Your task to perform on an android device: Is it going to rain this weekend? Image 0: 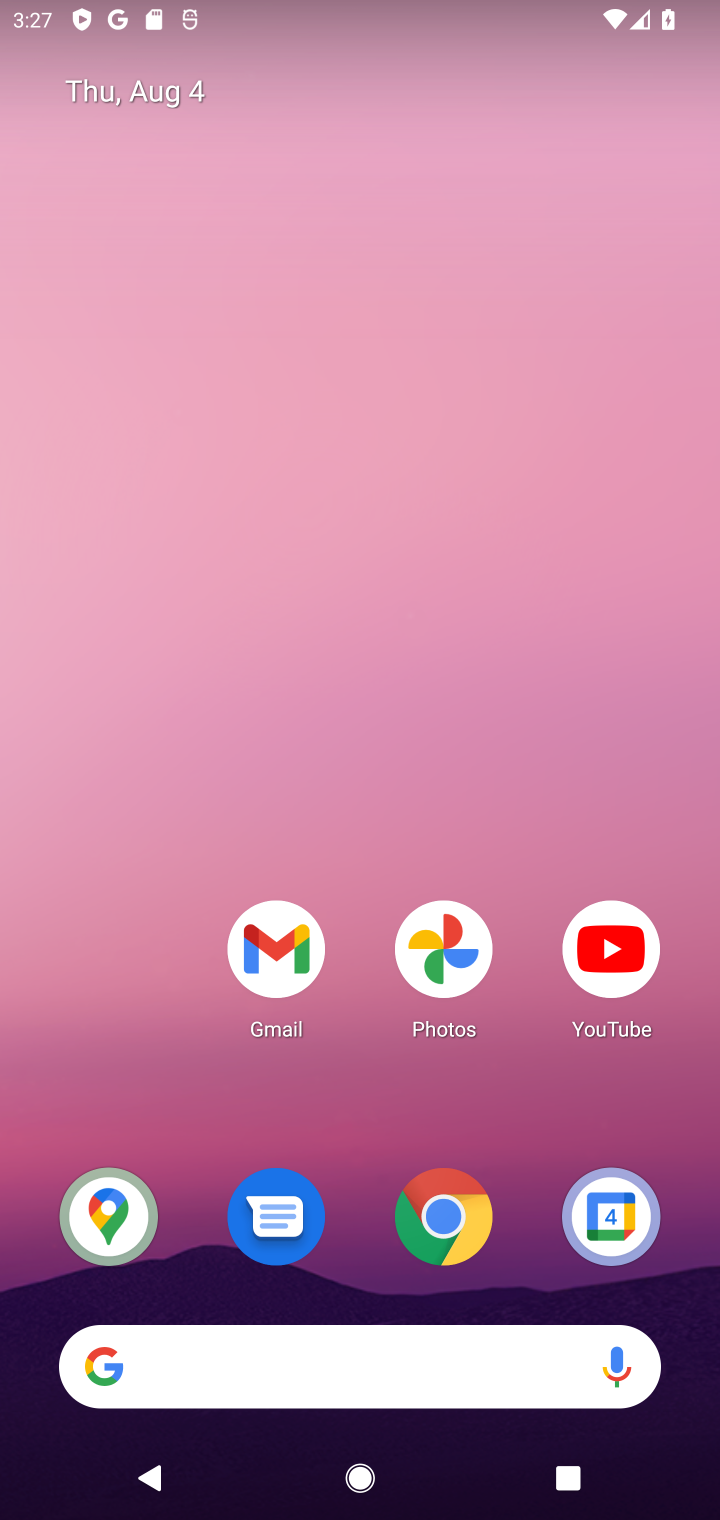
Step 0: drag from (73, 1078) to (206, 164)
Your task to perform on an android device: Is it going to rain this weekend? Image 1: 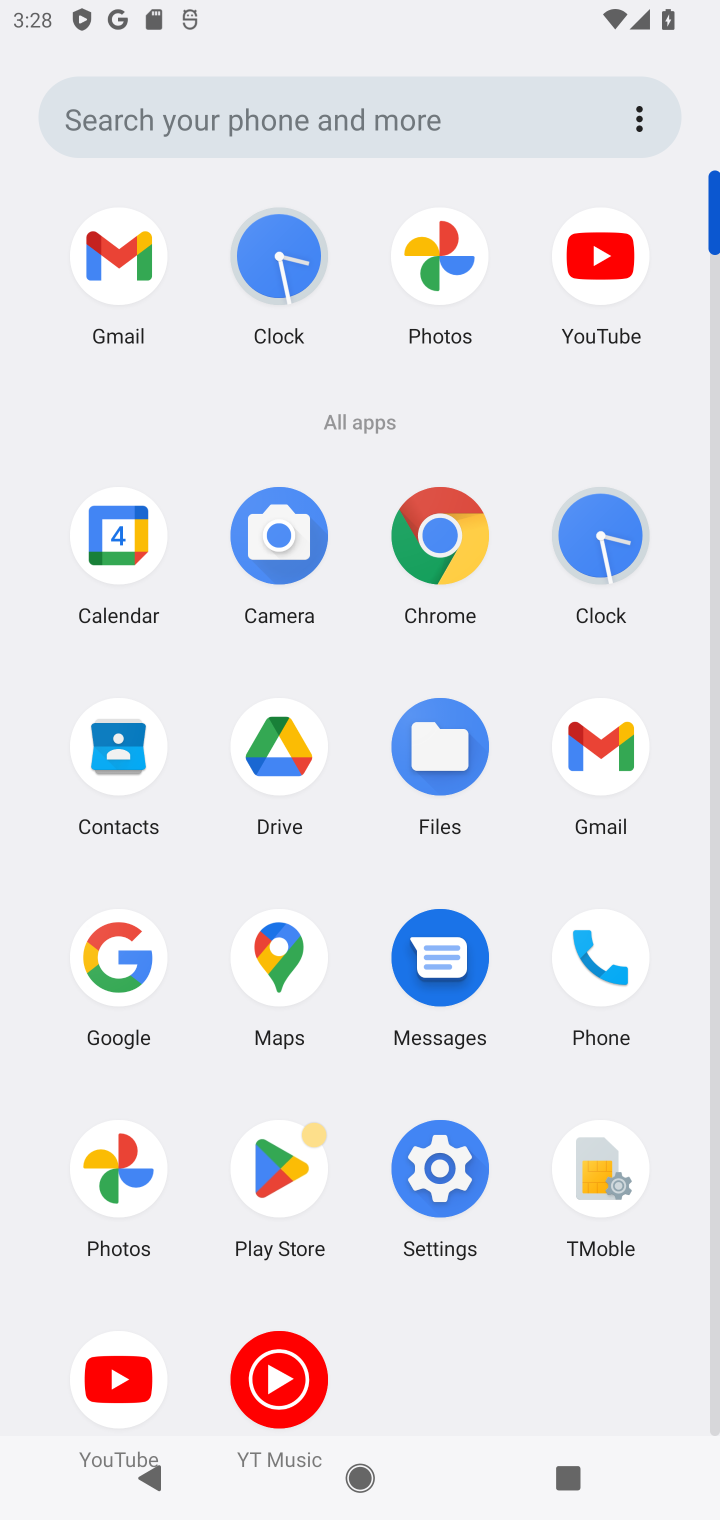
Step 1: click (355, 109)
Your task to perform on an android device: Is it going to rain this weekend? Image 2: 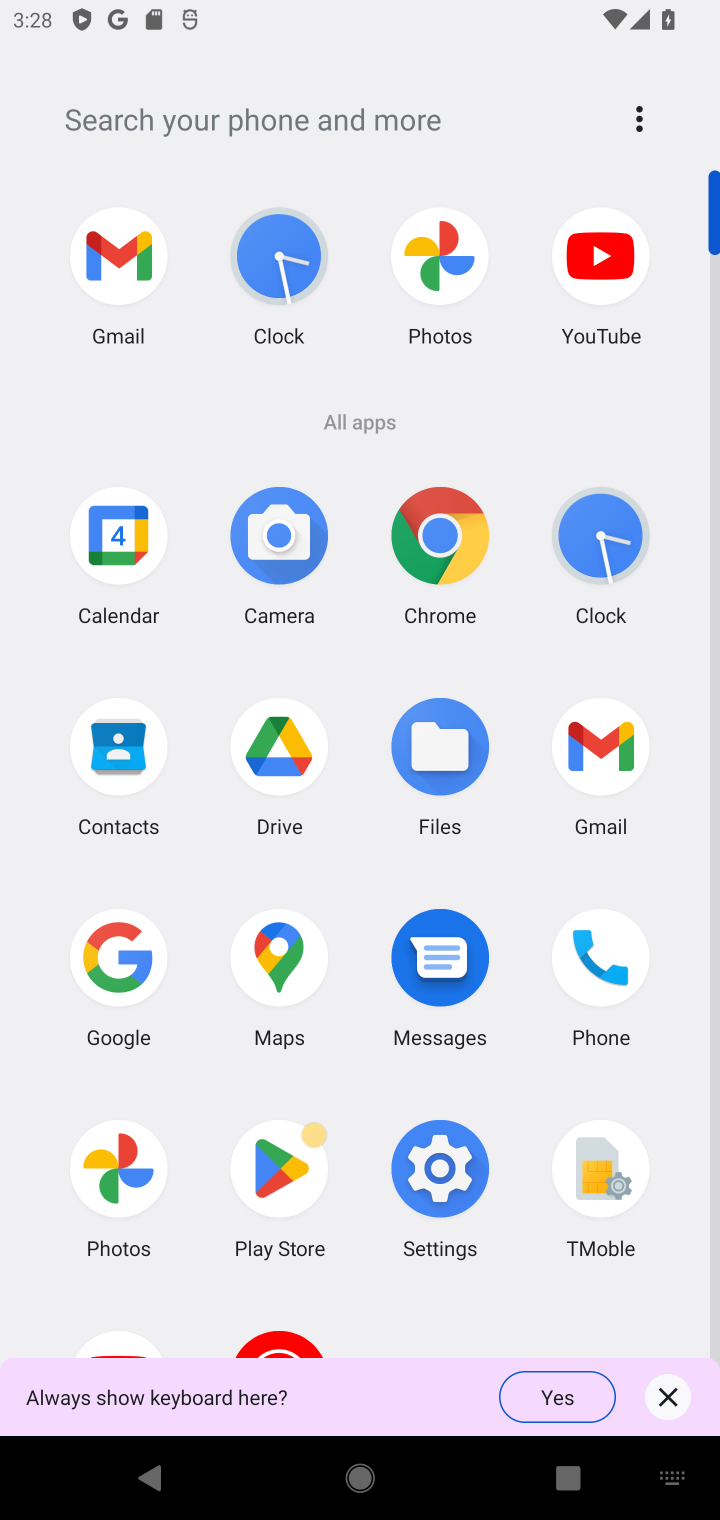
Step 2: click (161, 124)
Your task to perform on an android device: Is it going to rain this weekend? Image 3: 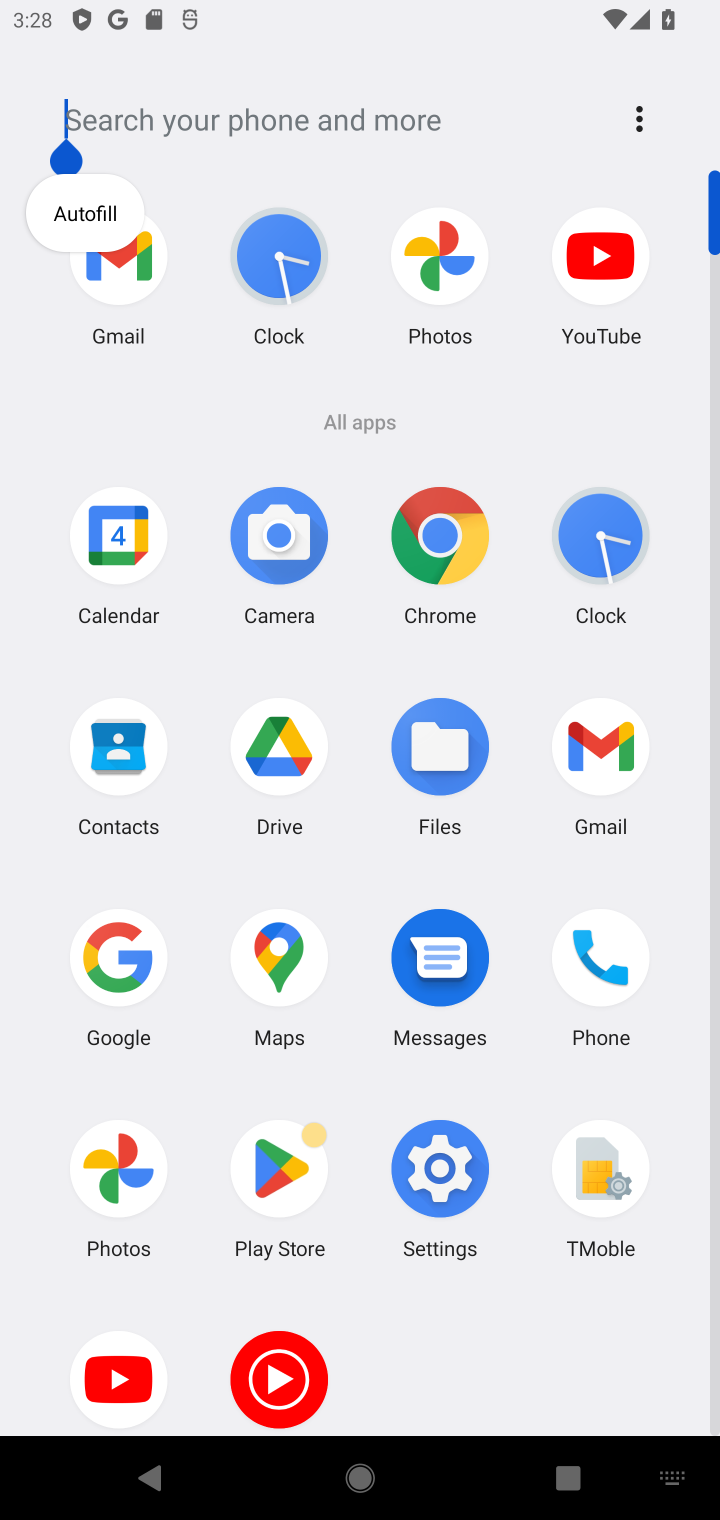
Step 3: click (280, 109)
Your task to perform on an android device: Is it going to rain this weekend? Image 4: 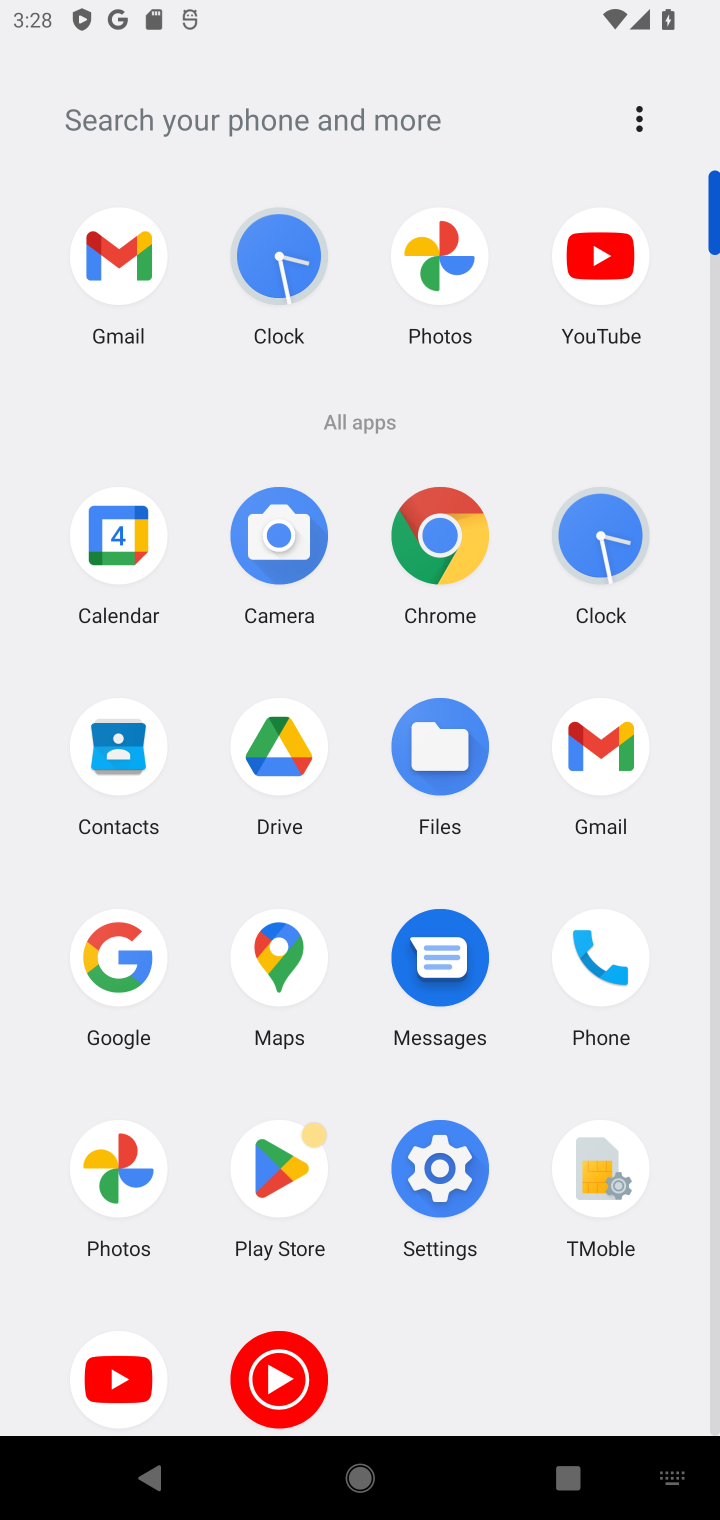
Step 4: click (280, 109)
Your task to perform on an android device: Is it going to rain this weekend? Image 5: 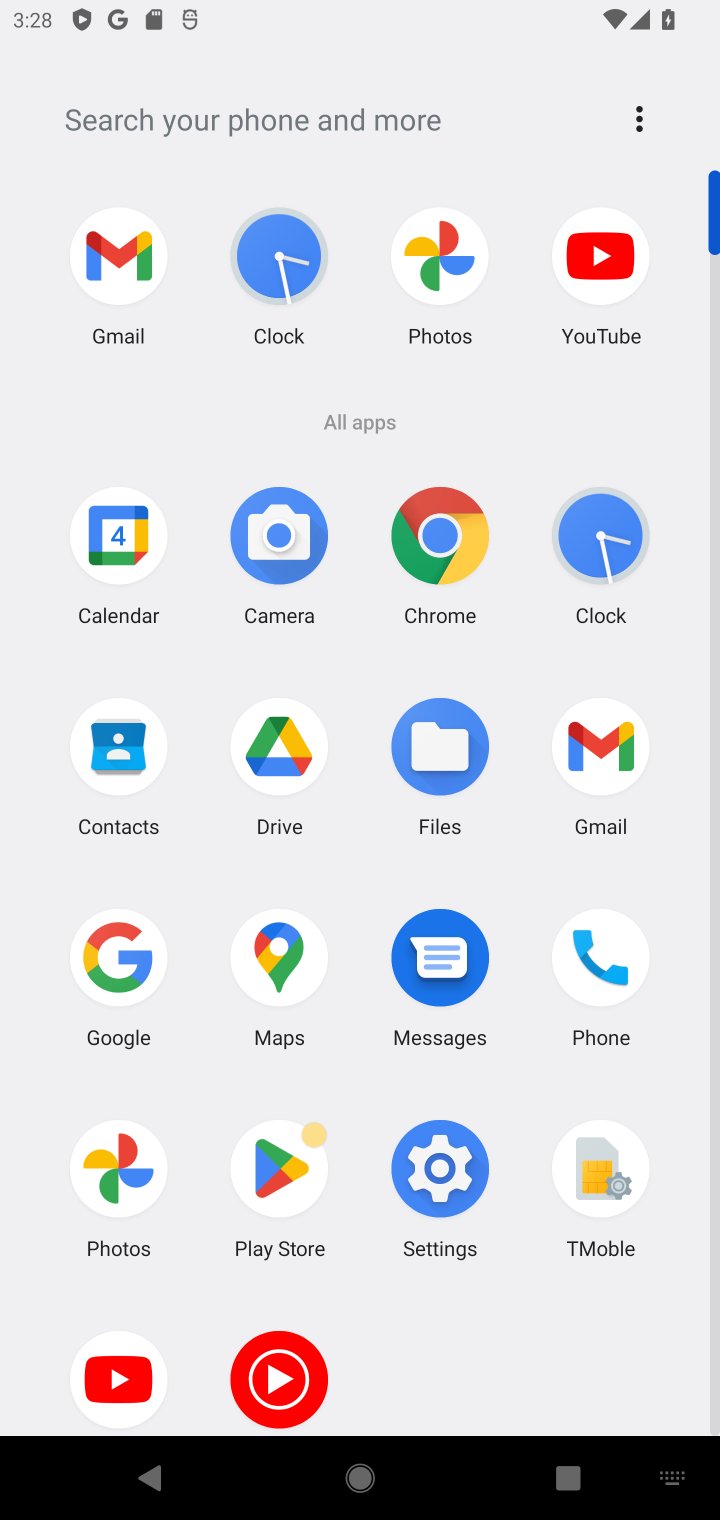
Step 5: click (58, 968)
Your task to perform on an android device: Is it going to rain this weekend? Image 6: 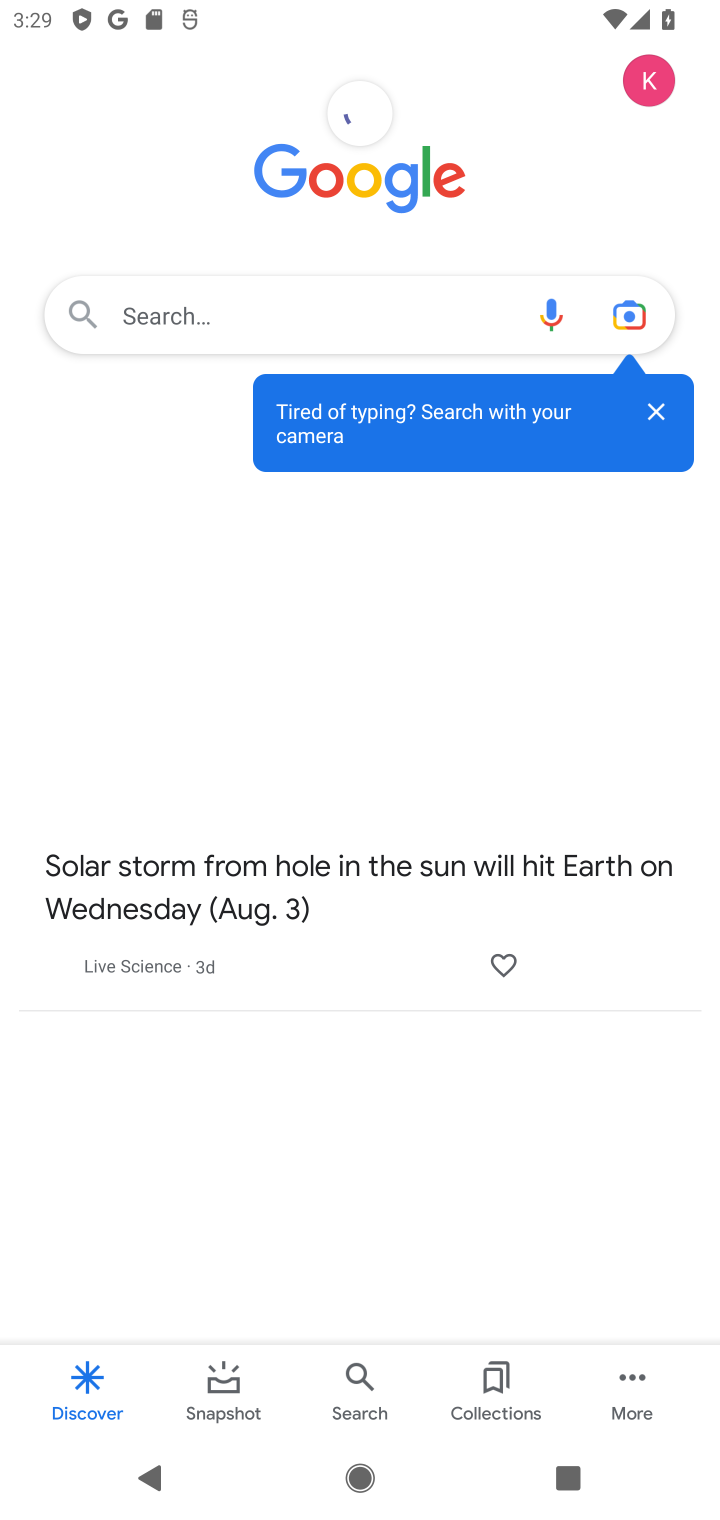
Step 6: click (267, 299)
Your task to perform on an android device: Is it going to rain this weekend? Image 7: 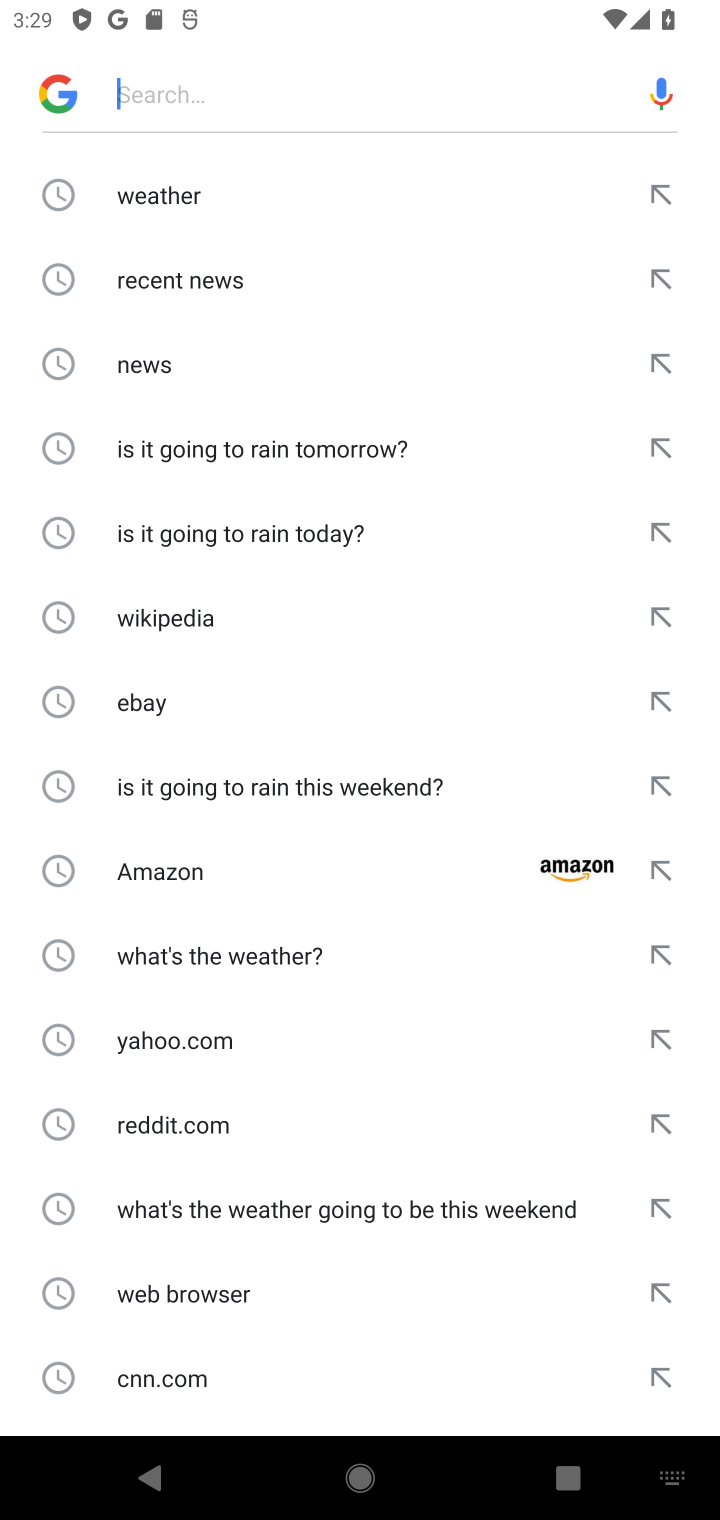
Step 7: click (171, 189)
Your task to perform on an android device: Is it going to rain this weekend? Image 8: 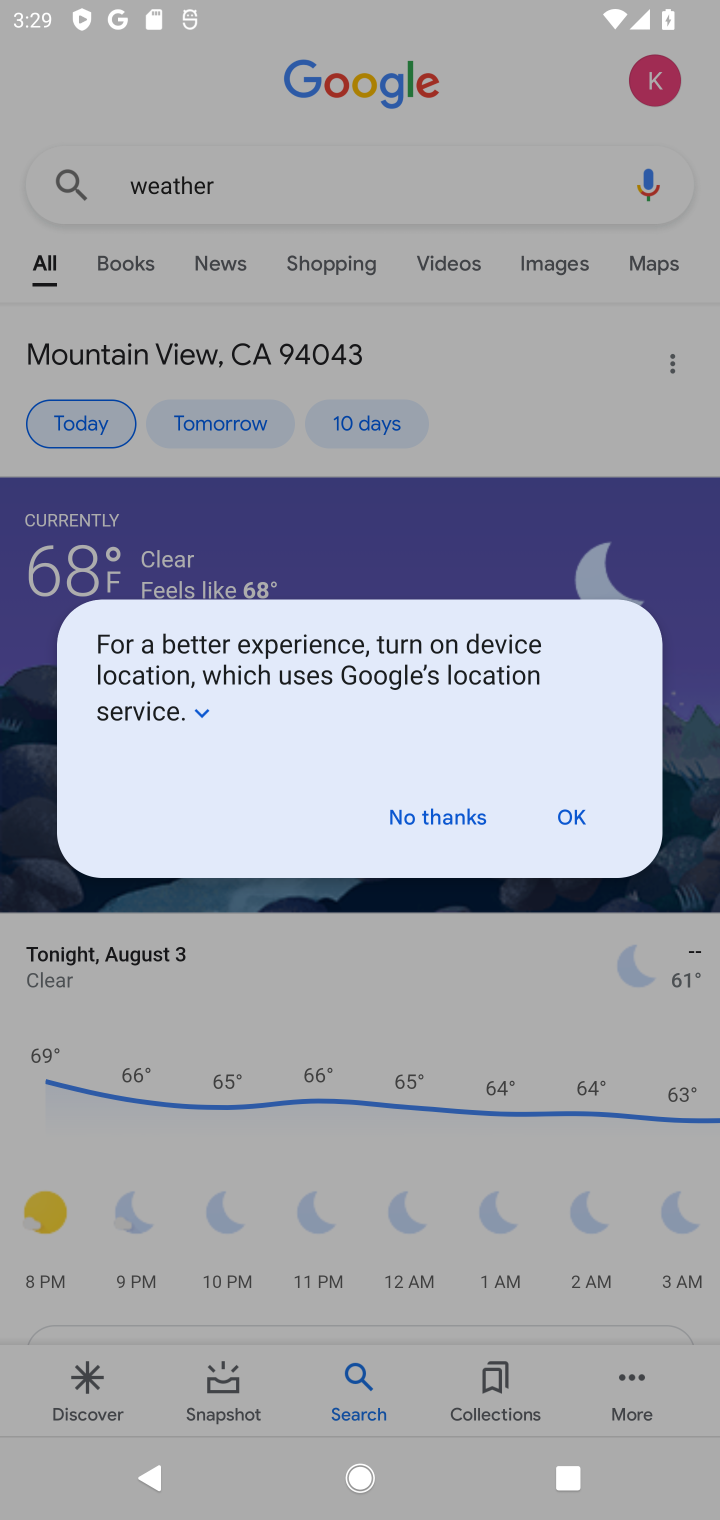
Step 8: click (570, 807)
Your task to perform on an android device: Is it going to rain this weekend? Image 9: 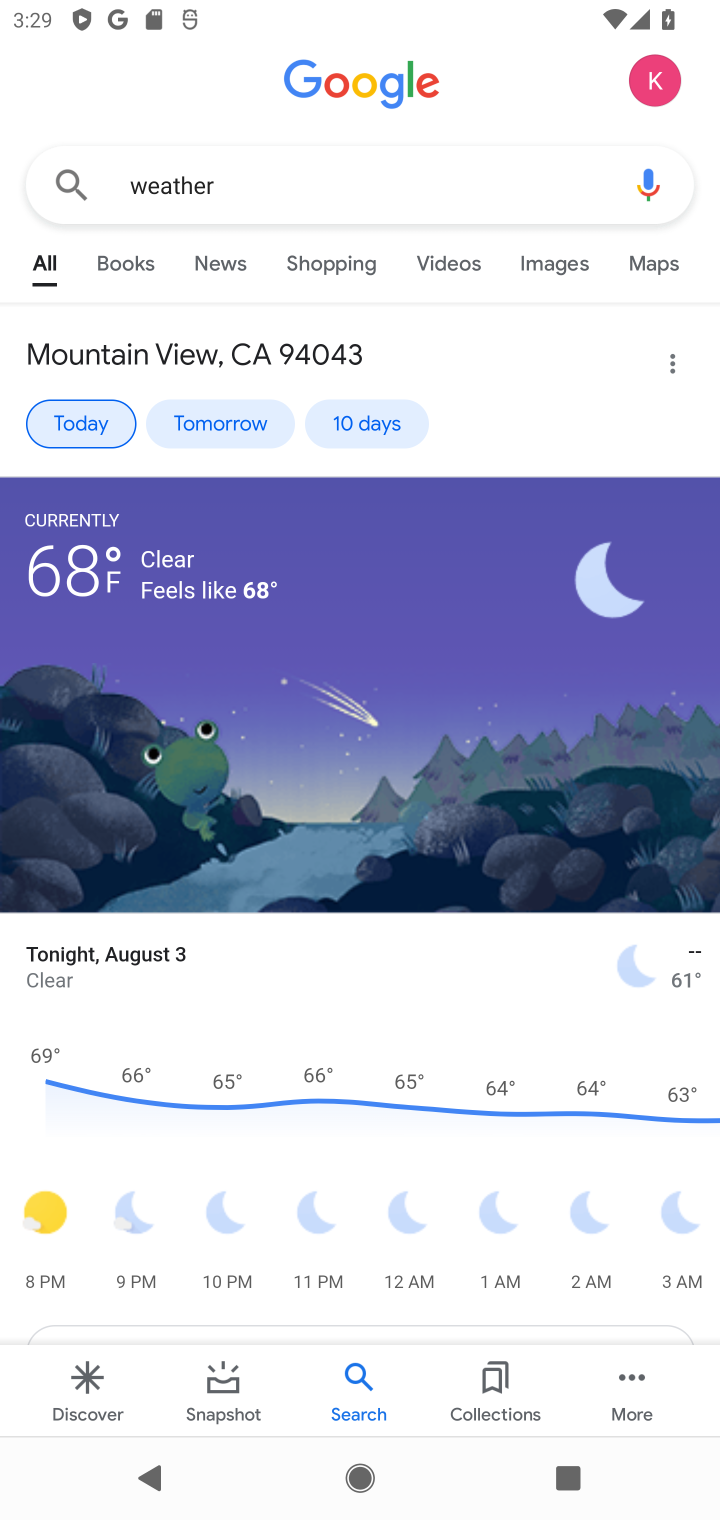
Step 9: click (378, 425)
Your task to perform on an android device: Is it going to rain this weekend? Image 10: 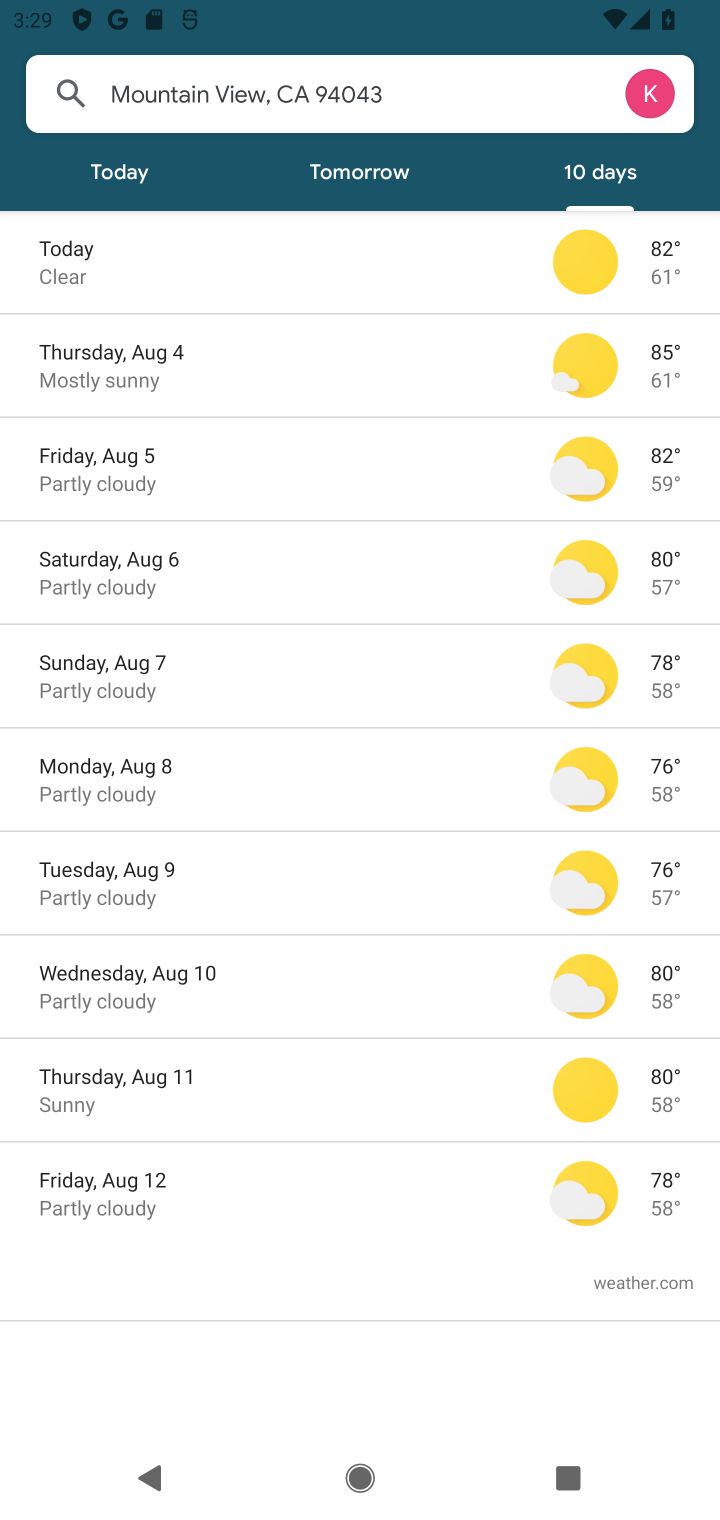
Step 10: task complete